Your task to perform on an android device: Go to settings Image 0: 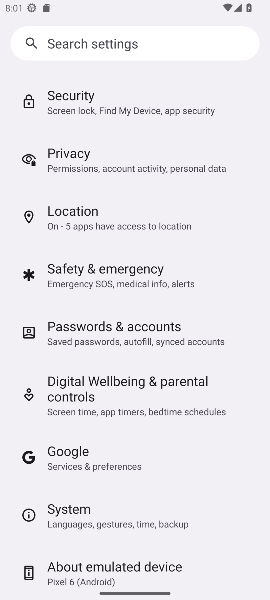
Step 0: task complete